Your task to perform on an android device: Open calendar and show me the third week of next month Image 0: 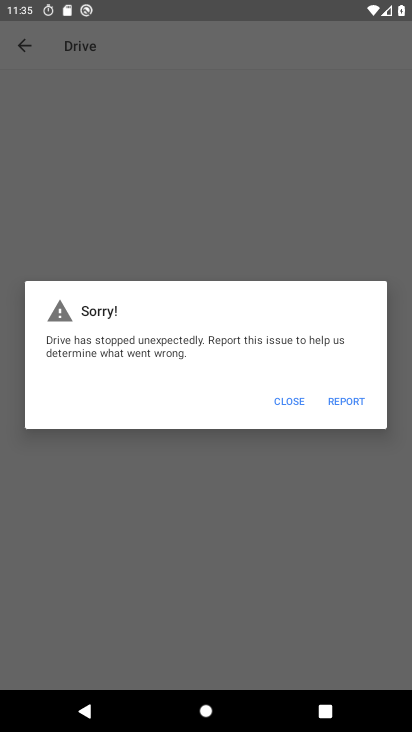
Step 0: press home button
Your task to perform on an android device: Open calendar and show me the third week of next month Image 1: 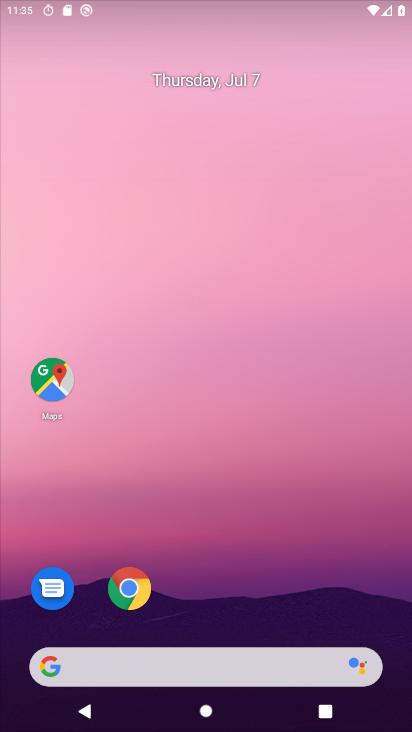
Step 1: drag from (243, 667) to (352, 51)
Your task to perform on an android device: Open calendar and show me the third week of next month Image 2: 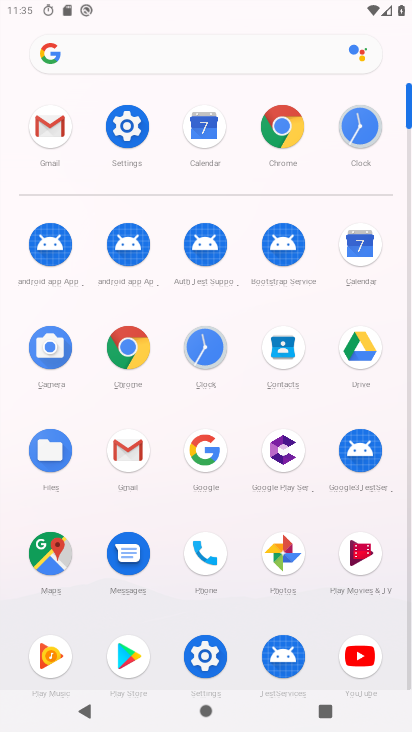
Step 2: click (362, 254)
Your task to perform on an android device: Open calendar and show me the third week of next month Image 3: 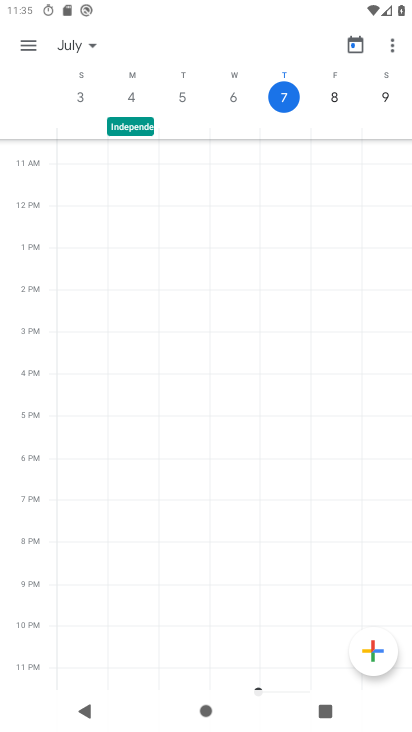
Step 3: click (72, 43)
Your task to perform on an android device: Open calendar and show me the third week of next month Image 4: 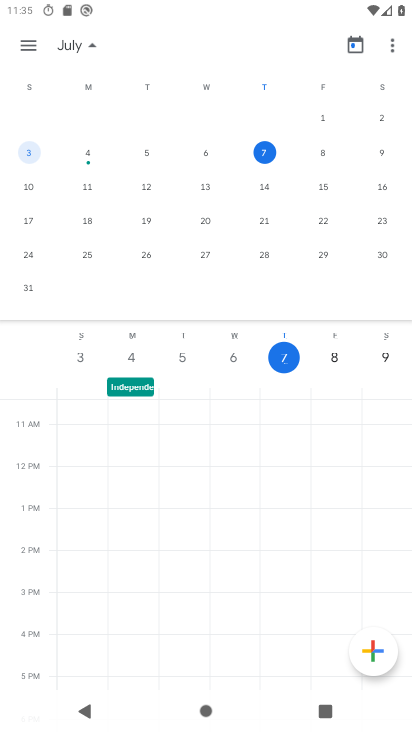
Step 4: drag from (378, 200) to (38, 210)
Your task to perform on an android device: Open calendar and show me the third week of next month Image 5: 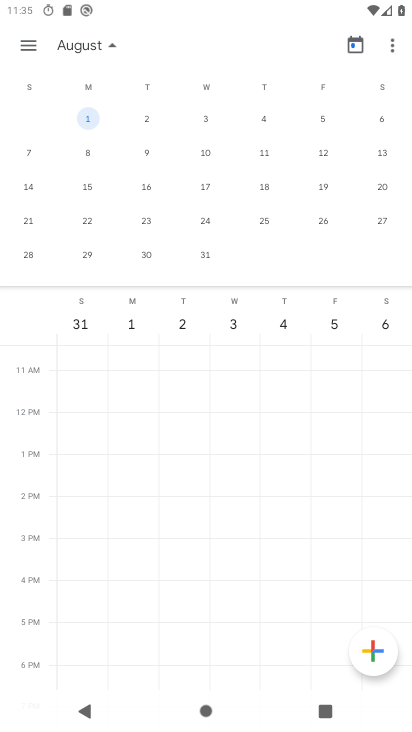
Step 5: click (28, 186)
Your task to perform on an android device: Open calendar and show me the third week of next month Image 6: 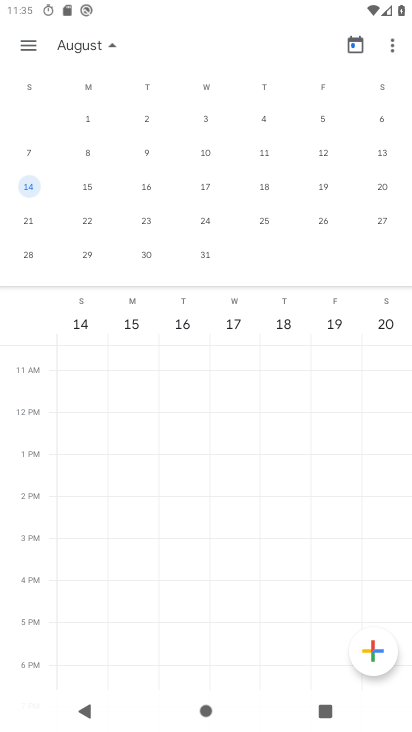
Step 6: click (28, 53)
Your task to perform on an android device: Open calendar and show me the third week of next month Image 7: 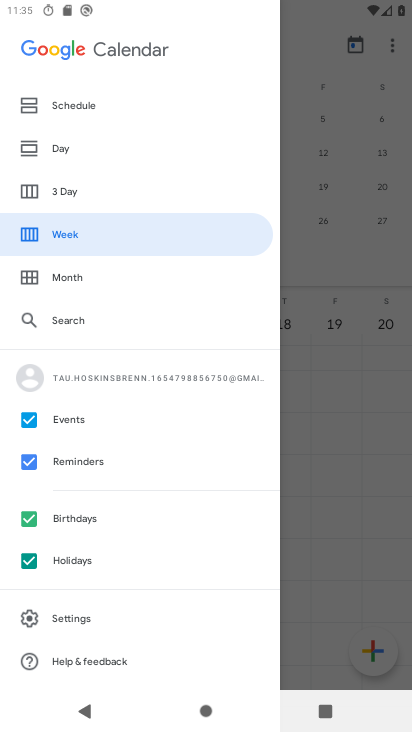
Step 7: click (70, 234)
Your task to perform on an android device: Open calendar and show me the third week of next month Image 8: 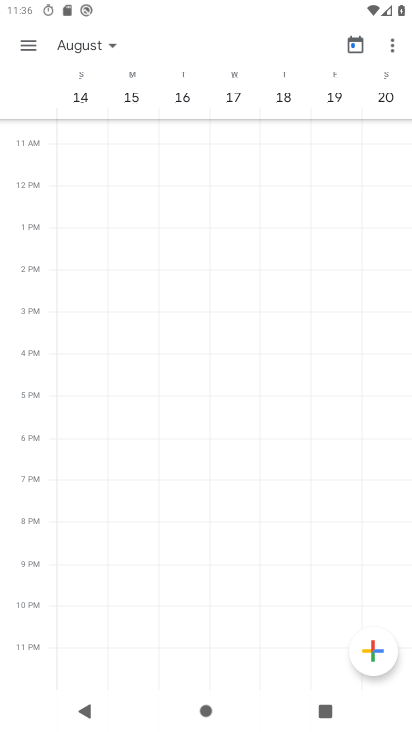
Step 8: task complete